Your task to perform on an android device: Find coffee shops on Maps Image 0: 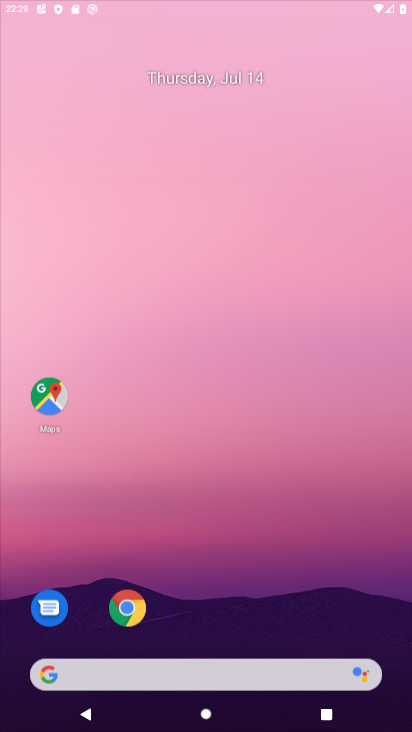
Step 0: press home button
Your task to perform on an android device: Find coffee shops on Maps Image 1: 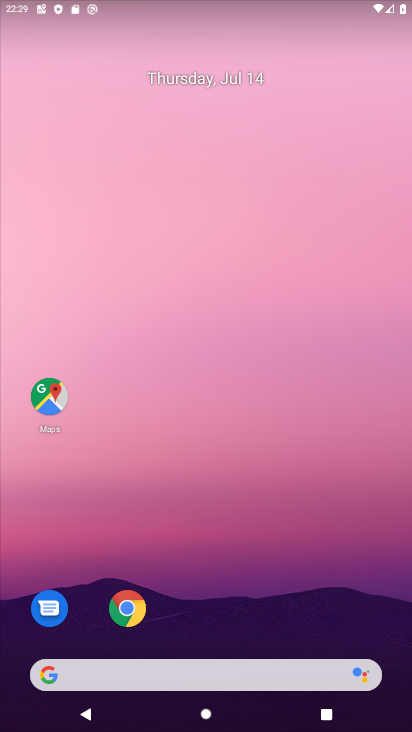
Step 1: click (139, 675)
Your task to perform on an android device: Find coffee shops on Maps Image 2: 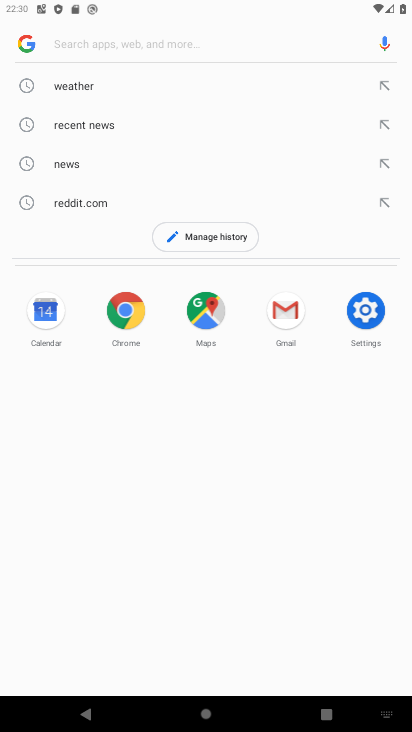
Step 2: click (207, 306)
Your task to perform on an android device: Find coffee shops on Maps Image 3: 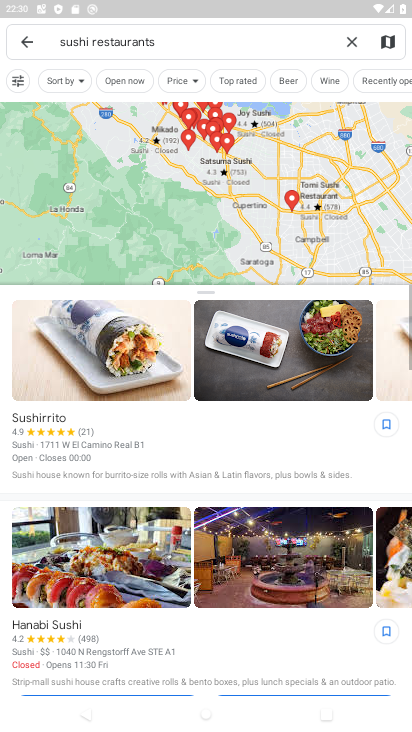
Step 3: click (352, 42)
Your task to perform on an android device: Find coffee shops on Maps Image 4: 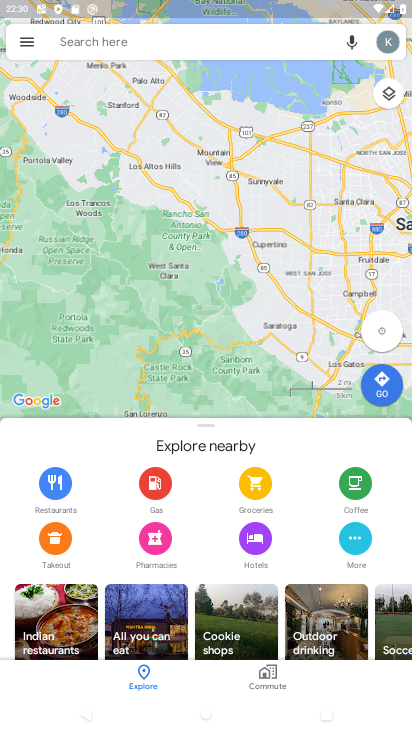
Step 4: click (261, 45)
Your task to perform on an android device: Find coffee shops on Maps Image 5: 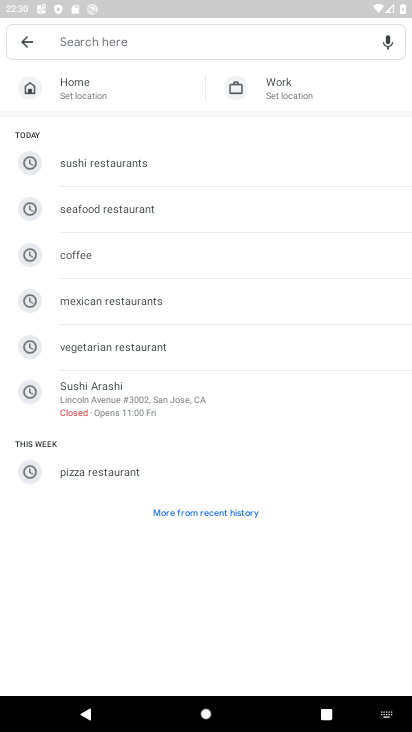
Step 5: type "coffee shops"
Your task to perform on an android device: Find coffee shops on Maps Image 6: 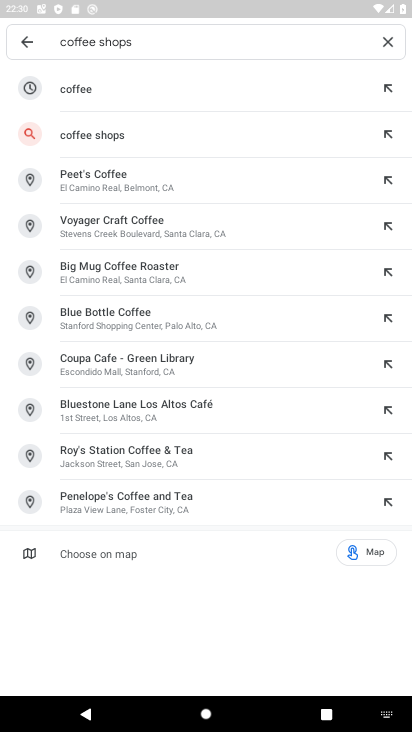
Step 6: click (212, 142)
Your task to perform on an android device: Find coffee shops on Maps Image 7: 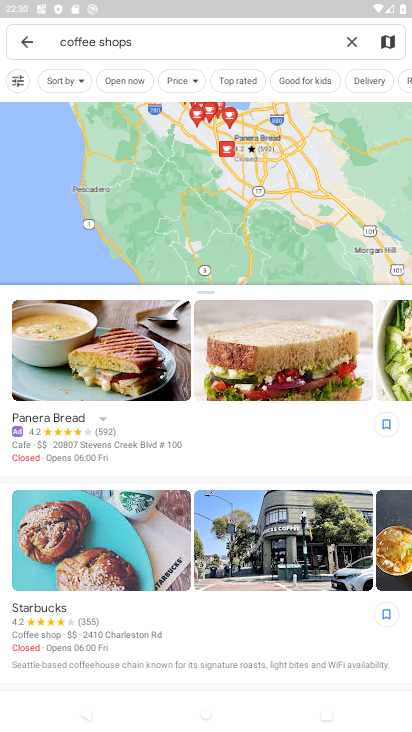
Step 7: task complete